Your task to perform on an android device: Open settings on Google Maps Image 0: 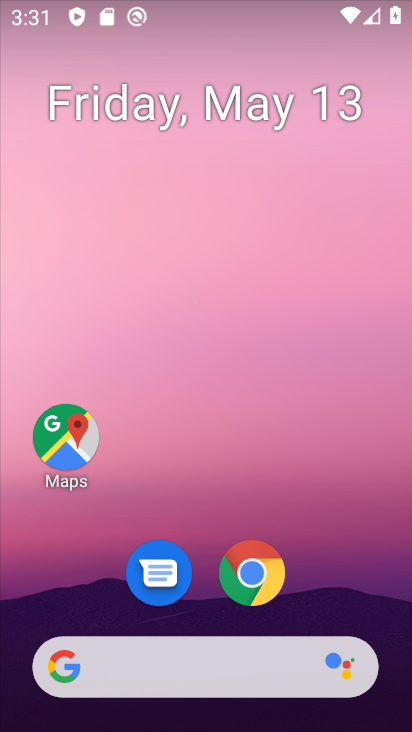
Step 0: click (66, 435)
Your task to perform on an android device: Open settings on Google Maps Image 1: 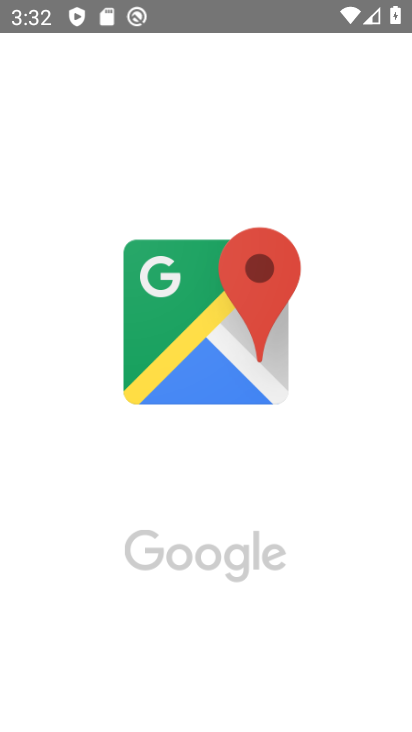
Step 1: task complete